Your task to perform on an android device: Search for Mexican restaurants on Maps Image 0: 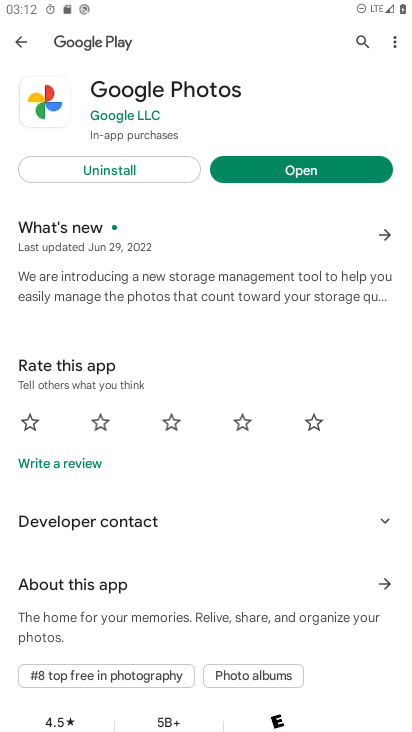
Step 0: press home button
Your task to perform on an android device: Search for Mexican restaurants on Maps Image 1: 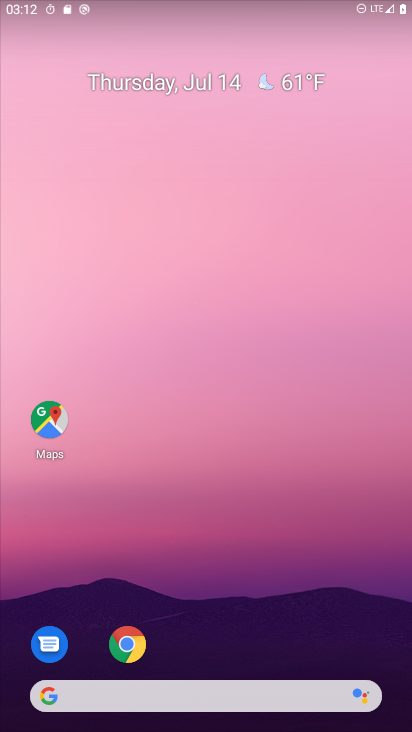
Step 1: drag from (253, 531) to (270, 93)
Your task to perform on an android device: Search for Mexican restaurants on Maps Image 2: 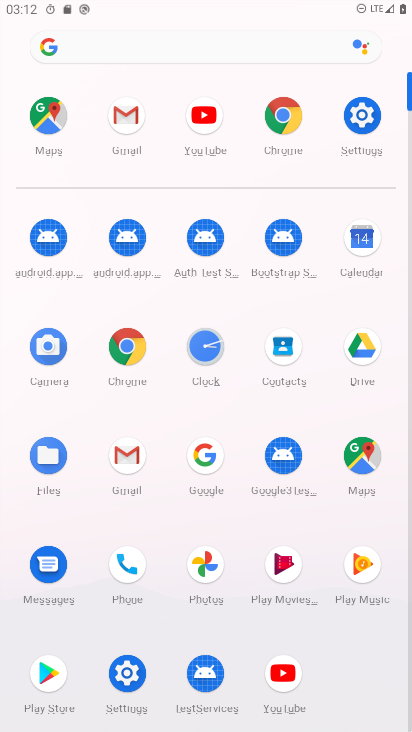
Step 2: click (46, 111)
Your task to perform on an android device: Search for Mexican restaurants on Maps Image 3: 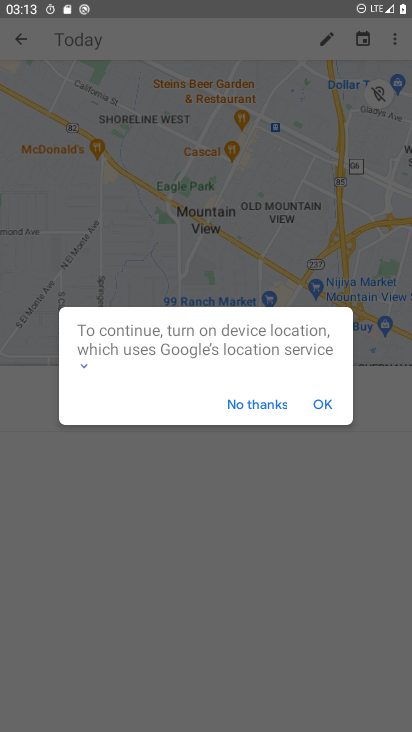
Step 3: click (321, 405)
Your task to perform on an android device: Search for Mexican restaurants on Maps Image 4: 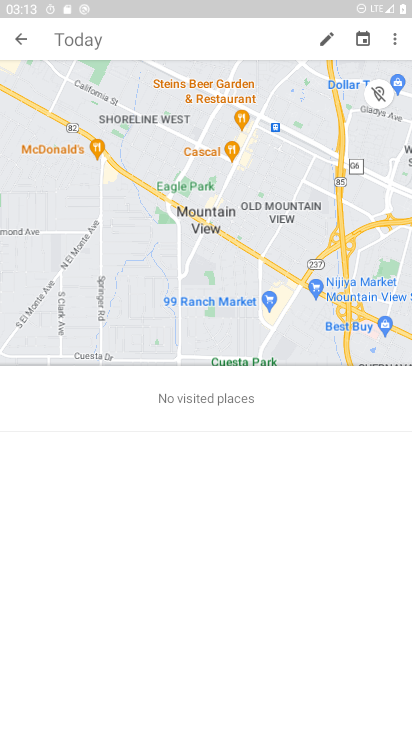
Step 4: click (21, 37)
Your task to perform on an android device: Search for Mexican restaurants on Maps Image 5: 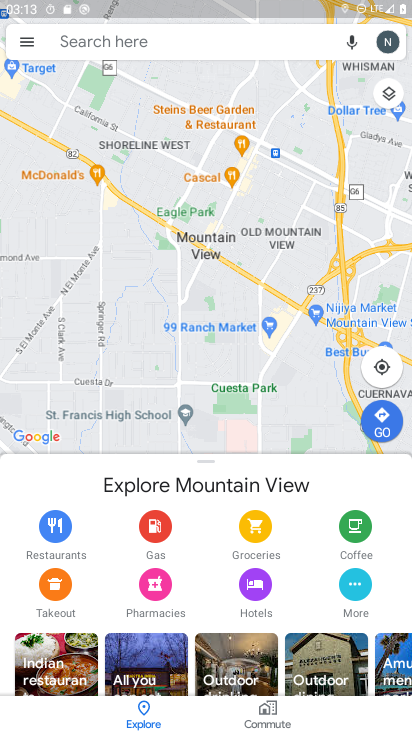
Step 5: click (161, 35)
Your task to perform on an android device: Search for Mexican restaurants on Maps Image 6: 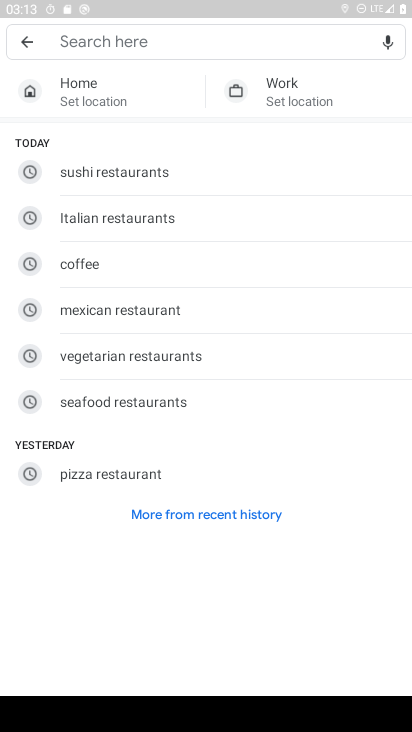
Step 6: type "Mexican restaurants"
Your task to perform on an android device: Search for Mexican restaurants on Maps Image 7: 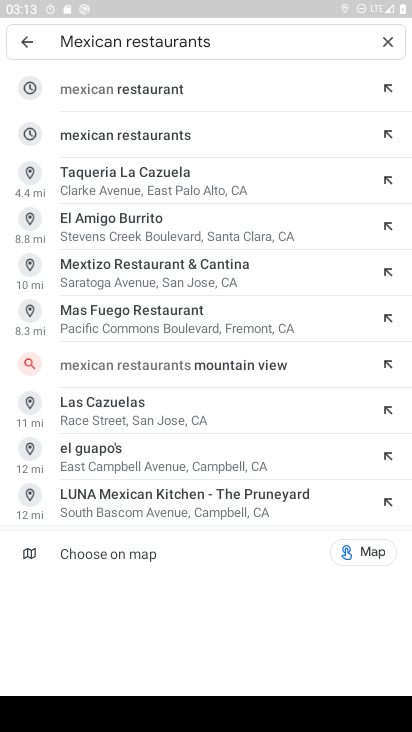
Step 7: press enter
Your task to perform on an android device: Search for Mexican restaurants on Maps Image 8: 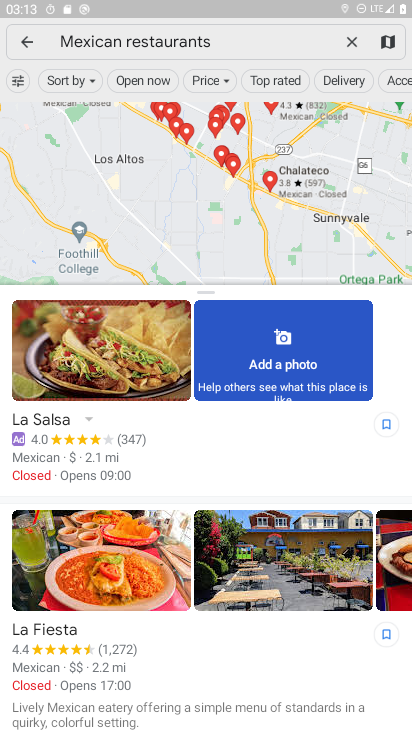
Step 8: task complete